Your task to perform on an android device: open app "Reddit" Image 0: 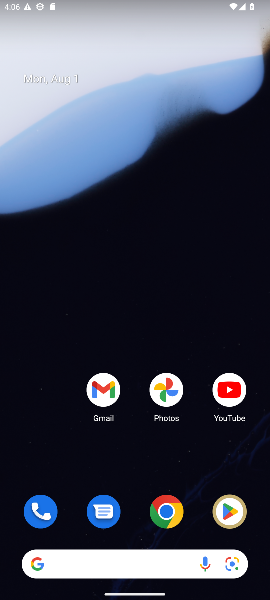
Step 0: drag from (125, 494) to (125, 151)
Your task to perform on an android device: open app "Reddit" Image 1: 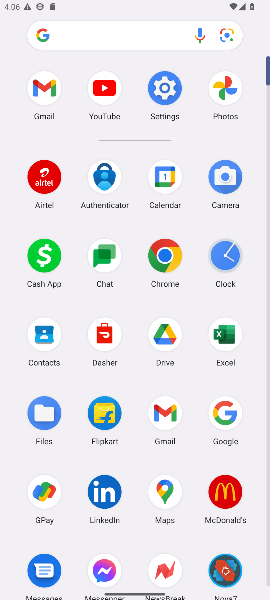
Step 1: drag from (145, 439) to (151, 293)
Your task to perform on an android device: open app "Reddit" Image 2: 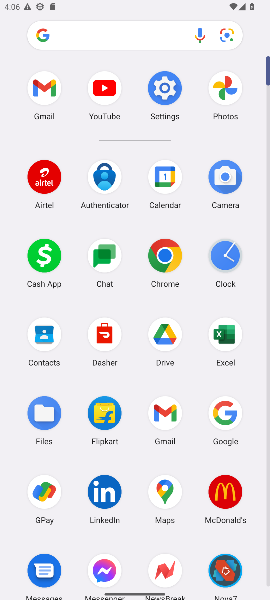
Step 2: drag from (192, 532) to (192, 411)
Your task to perform on an android device: open app "Reddit" Image 3: 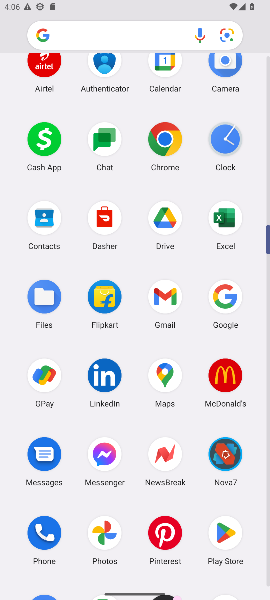
Step 3: click (230, 548)
Your task to perform on an android device: open app "Reddit" Image 4: 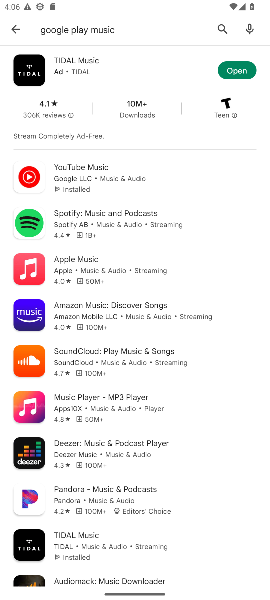
Step 4: click (13, 23)
Your task to perform on an android device: open app "Reddit" Image 5: 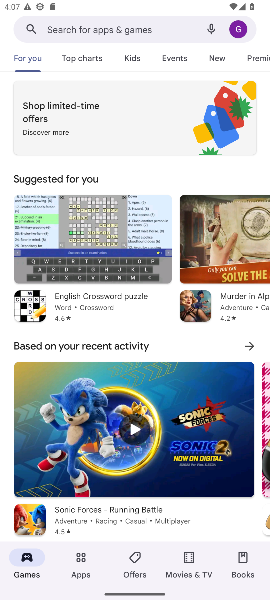
Step 5: click (131, 34)
Your task to perform on an android device: open app "Reddit" Image 6: 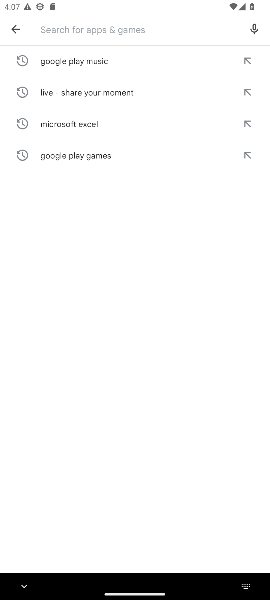
Step 6: type "Reddit"
Your task to perform on an android device: open app "Reddit" Image 7: 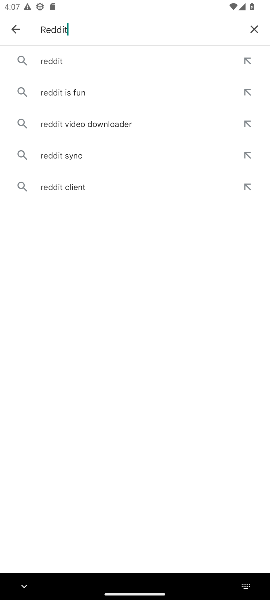
Step 7: click (62, 65)
Your task to perform on an android device: open app "Reddit" Image 8: 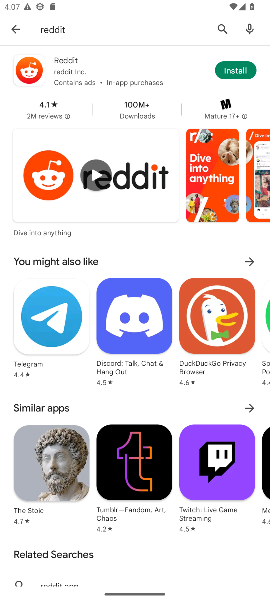
Step 8: click (225, 66)
Your task to perform on an android device: open app "Reddit" Image 9: 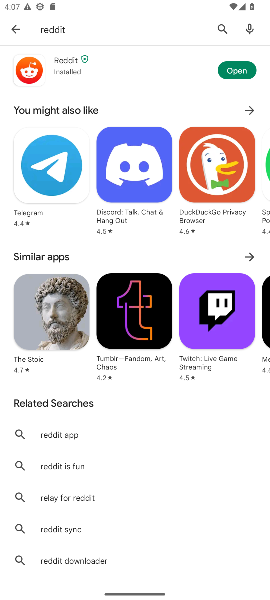
Step 9: click (224, 69)
Your task to perform on an android device: open app "Reddit" Image 10: 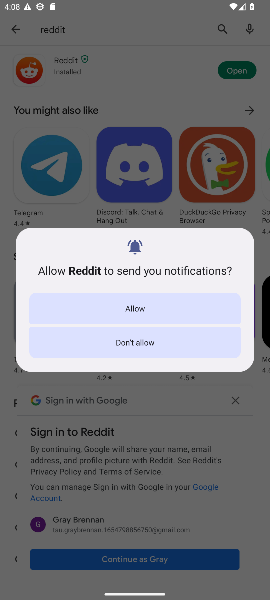
Step 10: click (148, 301)
Your task to perform on an android device: open app "Reddit" Image 11: 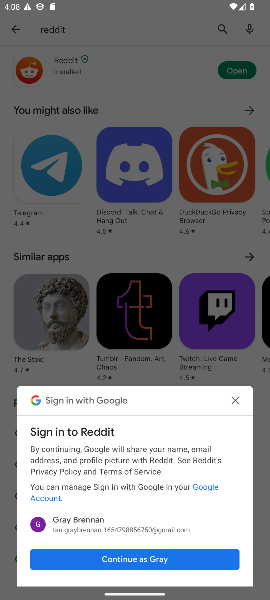
Step 11: click (144, 558)
Your task to perform on an android device: open app "Reddit" Image 12: 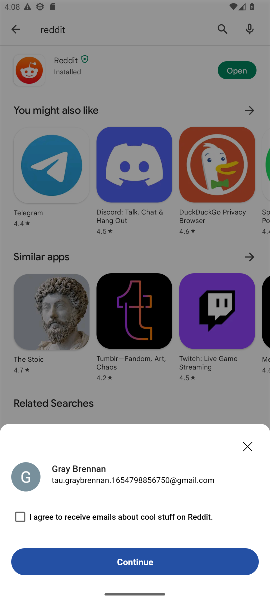
Step 12: click (144, 558)
Your task to perform on an android device: open app "Reddit" Image 13: 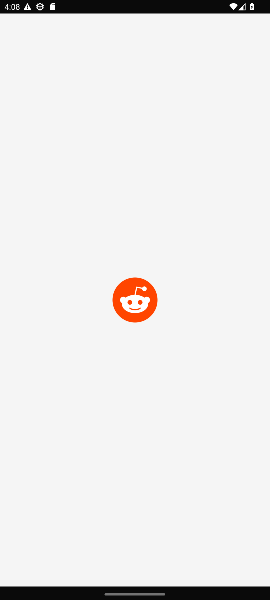
Step 13: click (226, 76)
Your task to perform on an android device: open app "Reddit" Image 14: 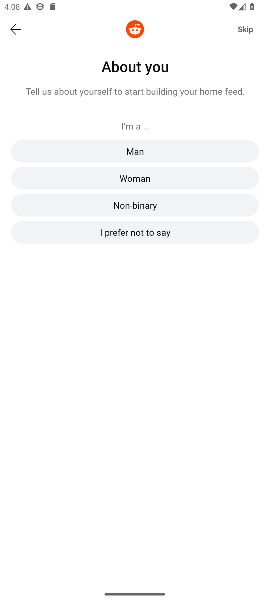
Step 14: click (240, 29)
Your task to perform on an android device: open app "Reddit" Image 15: 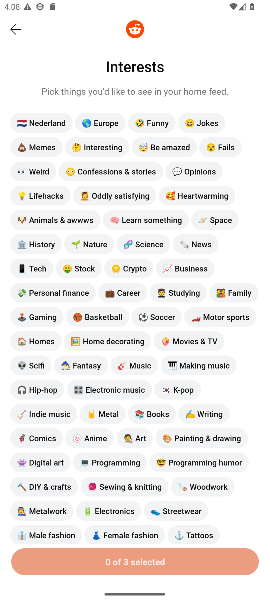
Step 15: task complete